Your task to perform on an android device: Open Google Image 0: 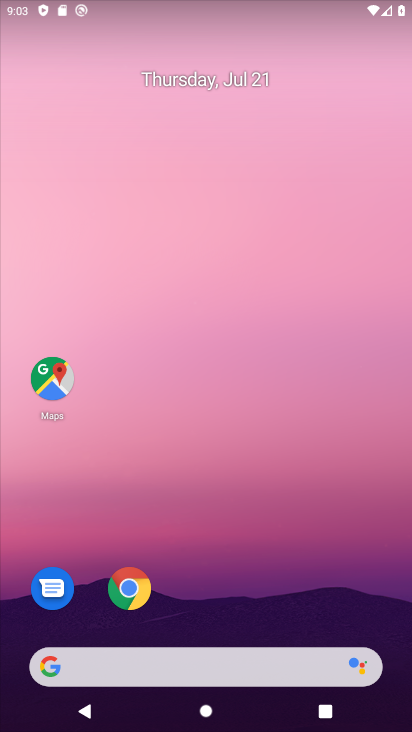
Step 0: drag from (409, 721) to (252, 54)
Your task to perform on an android device: Open Google Image 1: 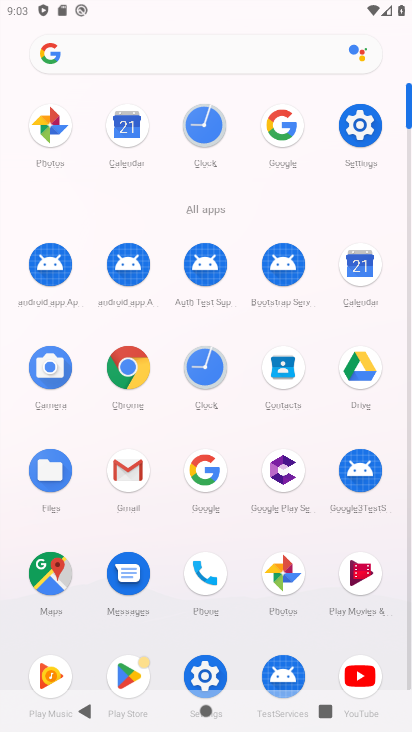
Step 1: click (207, 467)
Your task to perform on an android device: Open Google Image 2: 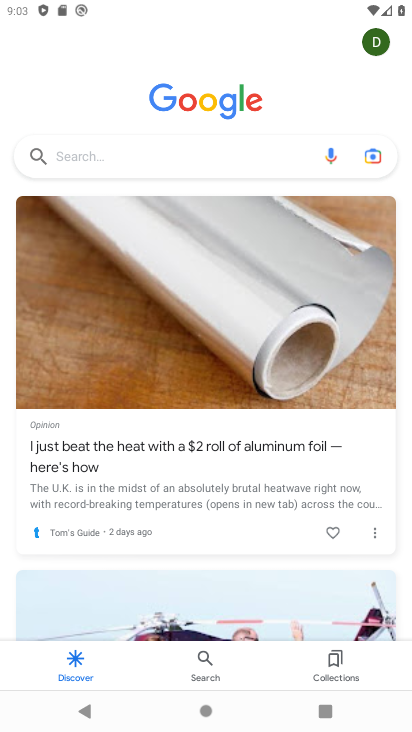
Step 2: task complete